Your task to perform on an android device: Open Google Maps and go to "Timeline" Image 0: 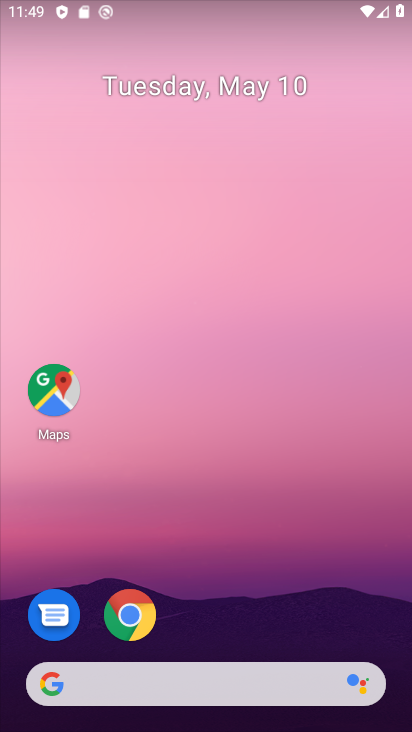
Step 0: click (232, 252)
Your task to perform on an android device: Open Google Maps and go to "Timeline" Image 1: 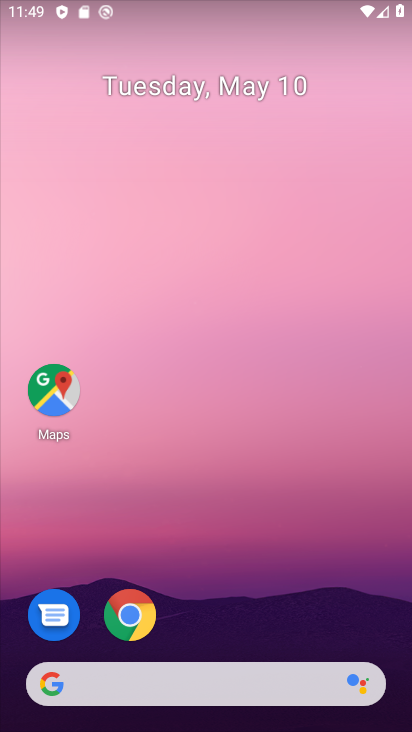
Step 1: drag from (243, 296) to (243, 162)
Your task to perform on an android device: Open Google Maps and go to "Timeline" Image 2: 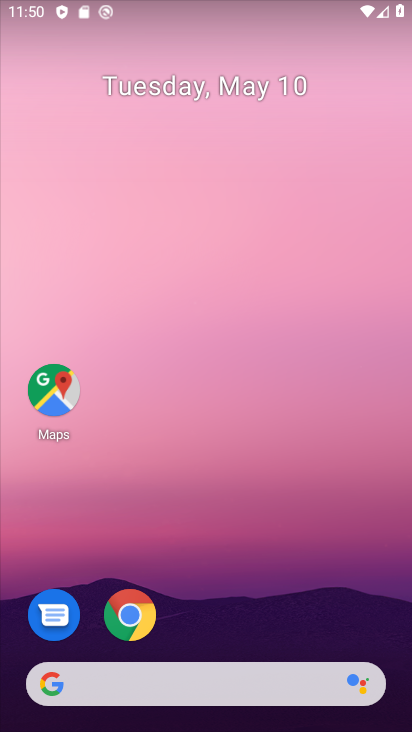
Step 2: drag from (227, 590) to (242, 180)
Your task to perform on an android device: Open Google Maps and go to "Timeline" Image 3: 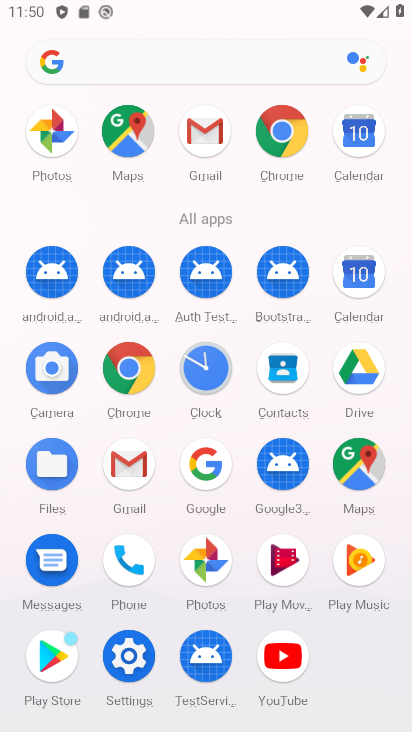
Step 3: click (133, 151)
Your task to perform on an android device: Open Google Maps and go to "Timeline" Image 4: 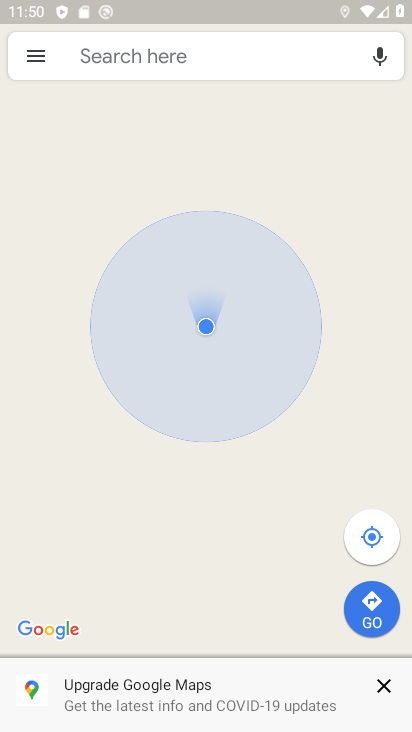
Step 4: click (22, 58)
Your task to perform on an android device: Open Google Maps and go to "Timeline" Image 5: 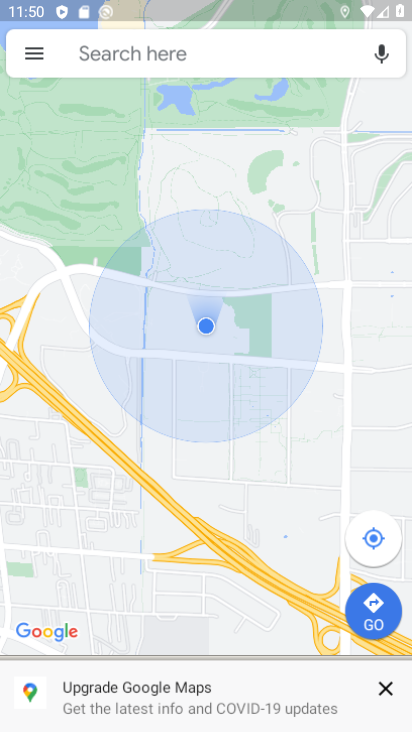
Step 5: click (32, 54)
Your task to perform on an android device: Open Google Maps and go to "Timeline" Image 6: 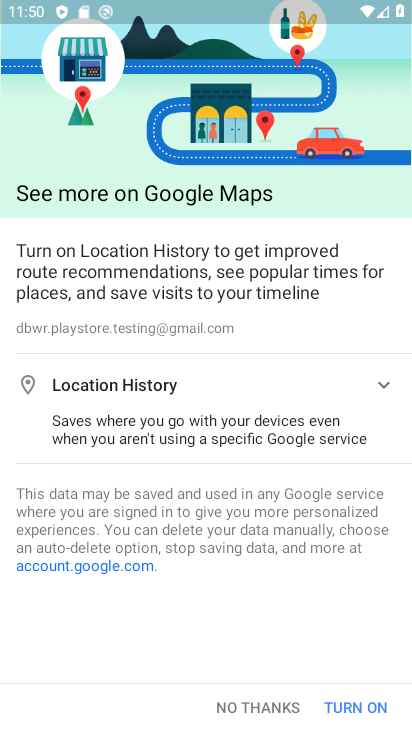
Step 6: click (267, 712)
Your task to perform on an android device: Open Google Maps and go to "Timeline" Image 7: 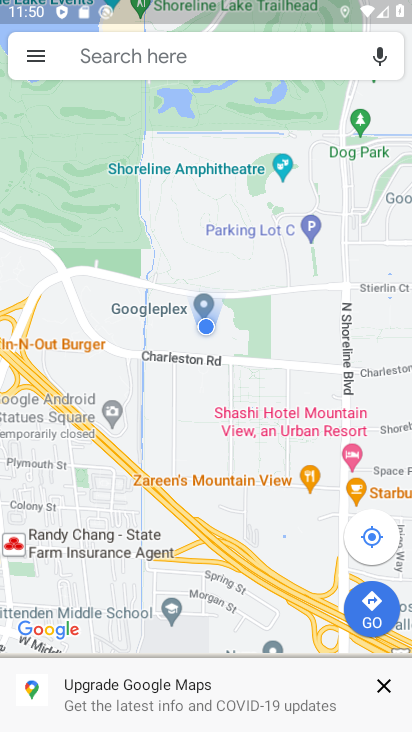
Step 7: click (37, 60)
Your task to perform on an android device: Open Google Maps and go to "Timeline" Image 8: 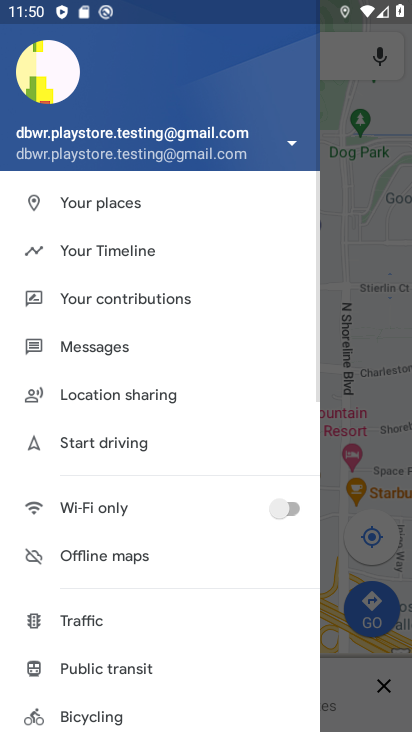
Step 8: click (102, 259)
Your task to perform on an android device: Open Google Maps and go to "Timeline" Image 9: 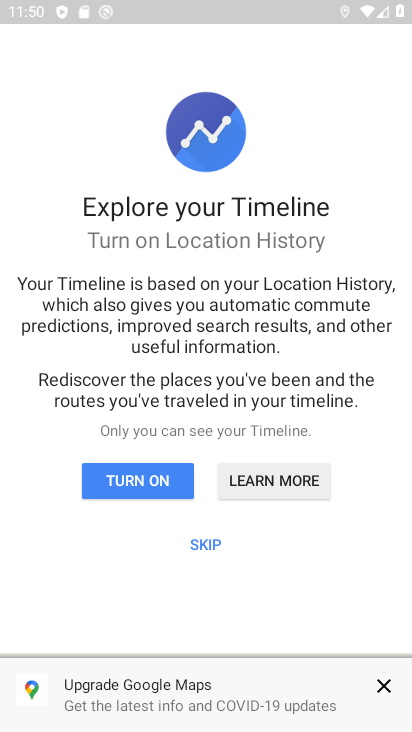
Step 9: click (192, 545)
Your task to perform on an android device: Open Google Maps and go to "Timeline" Image 10: 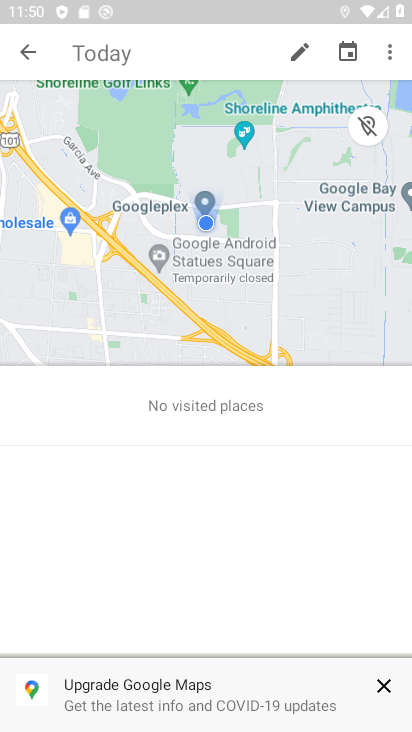
Step 10: task complete